Your task to perform on an android device: Go to CNN.com Image 0: 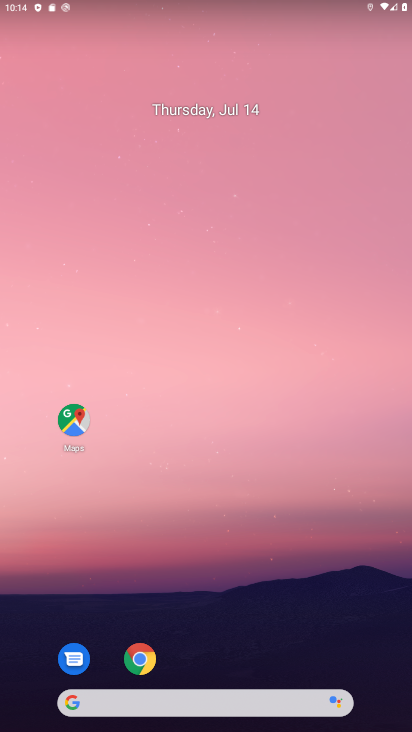
Step 0: drag from (233, 662) to (213, 173)
Your task to perform on an android device: Go to CNN.com Image 1: 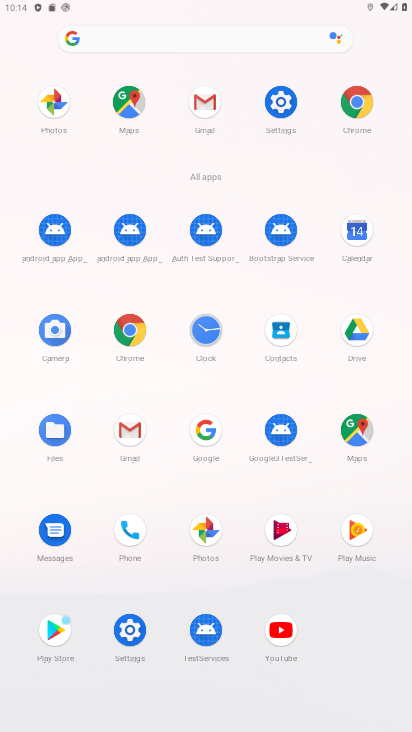
Step 1: click (353, 103)
Your task to perform on an android device: Go to CNN.com Image 2: 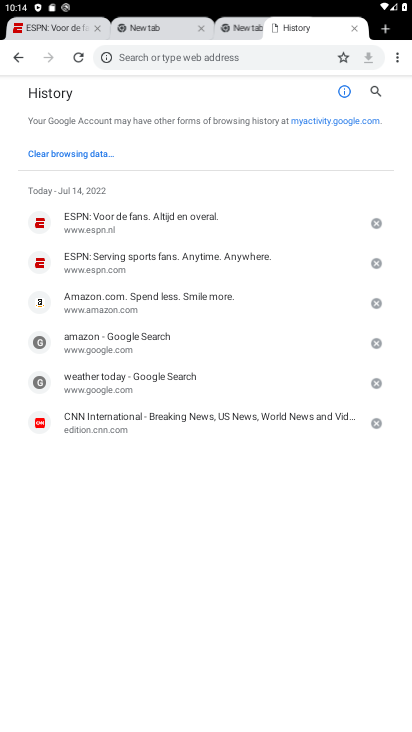
Step 2: click (386, 30)
Your task to perform on an android device: Go to CNN.com Image 3: 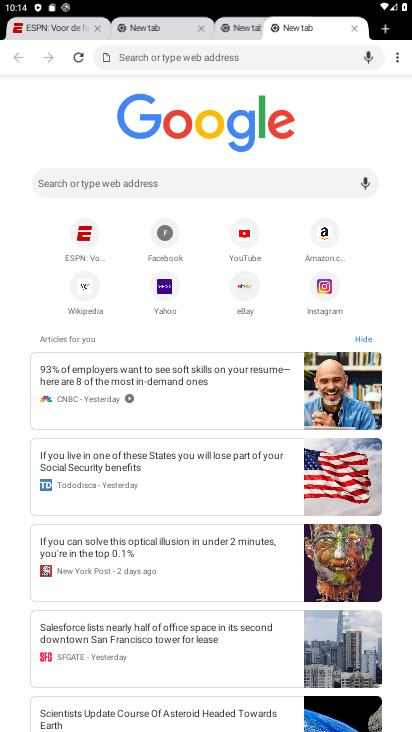
Step 3: click (223, 182)
Your task to perform on an android device: Go to CNN.com Image 4: 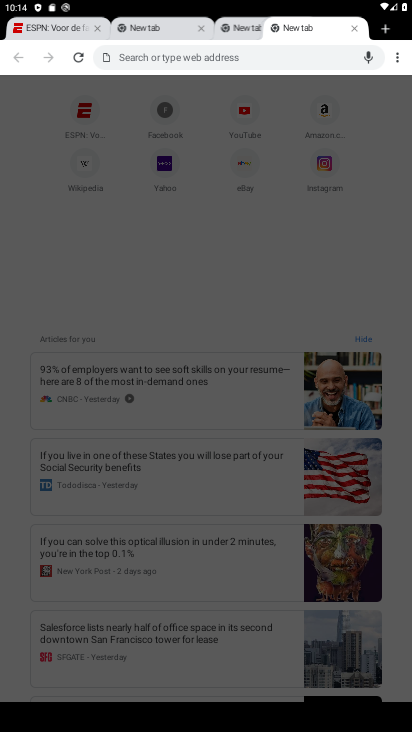
Step 4: type "CNN.com  "
Your task to perform on an android device: Go to CNN.com Image 5: 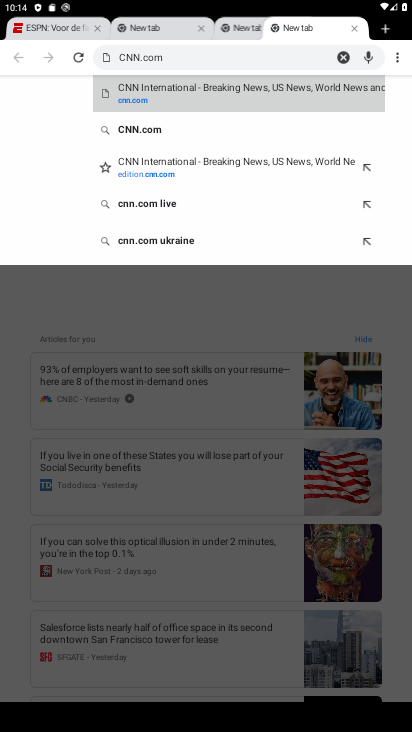
Step 5: click (226, 85)
Your task to perform on an android device: Go to CNN.com Image 6: 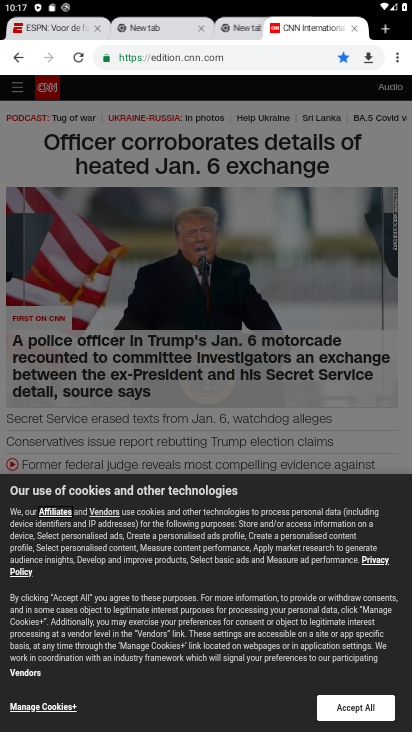
Step 6: task complete